Your task to perform on an android device: check out phone information Image 0: 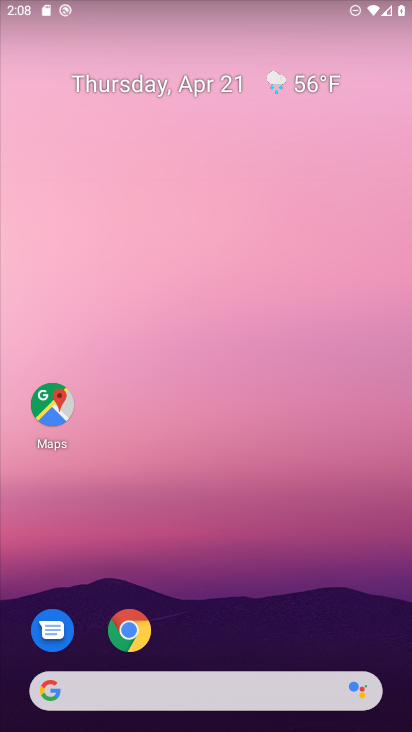
Step 0: drag from (244, 669) to (169, 29)
Your task to perform on an android device: check out phone information Image 1: 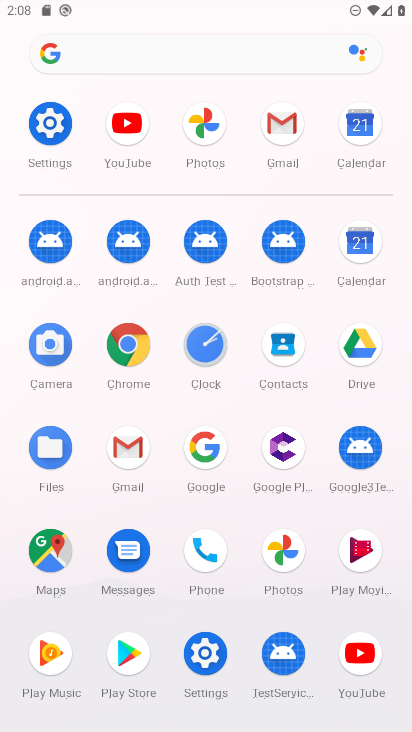
Step 1: click (213, 647)
Your task to perform on an android device: check out phone information Image 2: 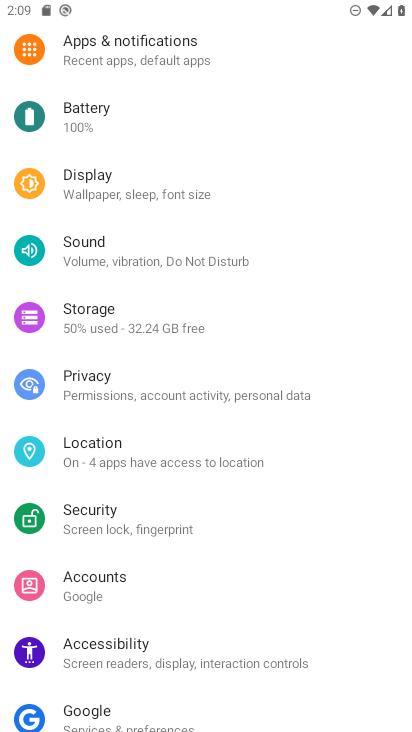
Step 2: drag from (173, 633) to (212, 73)
Your task to perform on an android device: check out phone information Image 3: 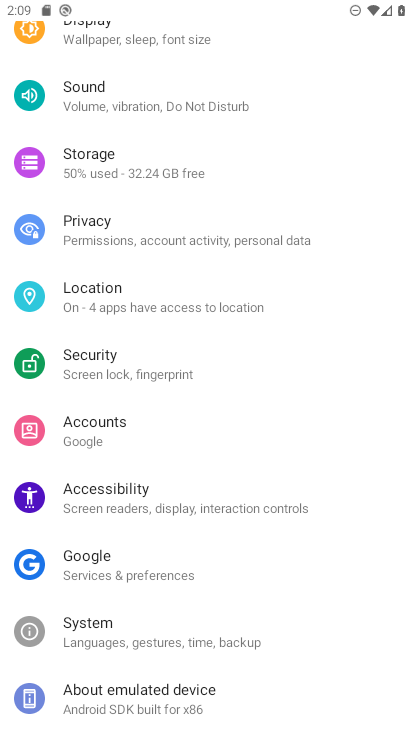
Step 3: click (180, 682)
Your task to perform on an android device: check out phone information Image 4: 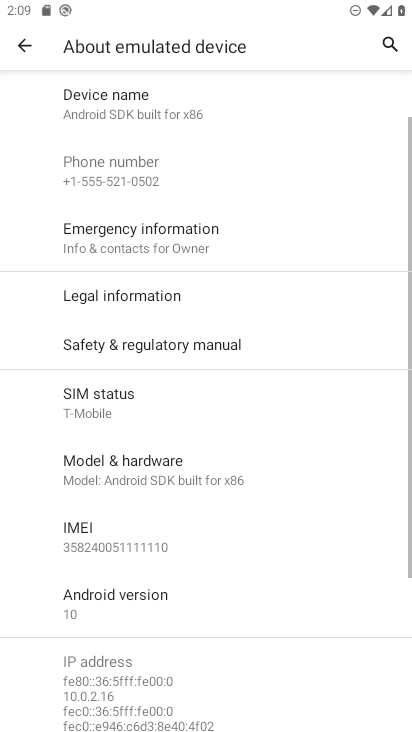
Step 4: task complete